Your task to perform on an android device: turn on notifications settings in the gmail app Image 0: 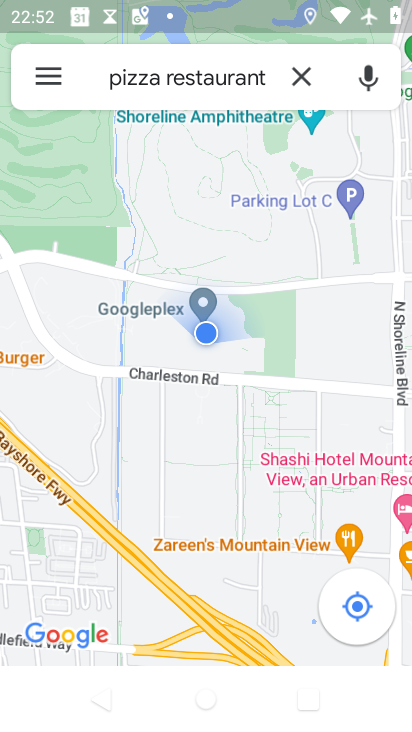
Step 0: press home button
Your task to perform on an android device: turn on notifications settings in the gmail app Image 1: 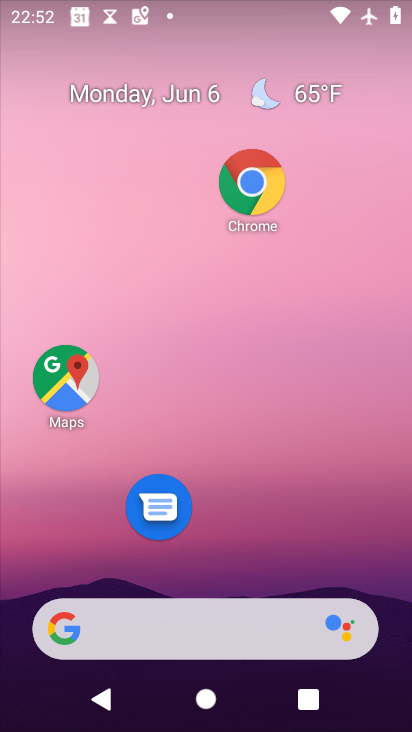
Step 1: drag from (205, 604) to (259, 290)
Your task to perform on an android device: turn on notifications settings in the gmail app Image 2: 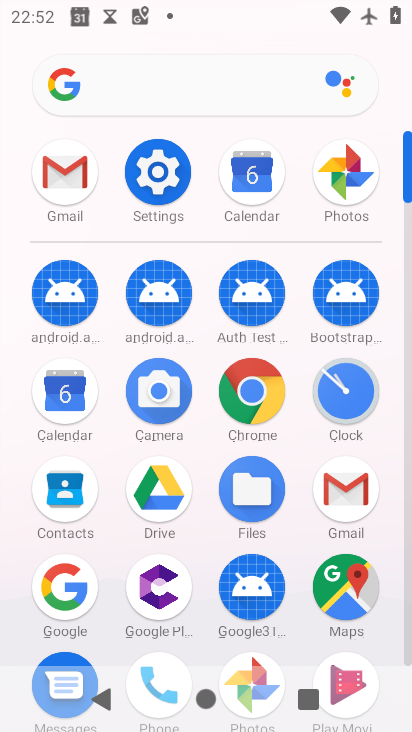
Step 2: click (344, 488)
Your task to perform on an android device: turn on notifications settings in the gmail app Image 3: 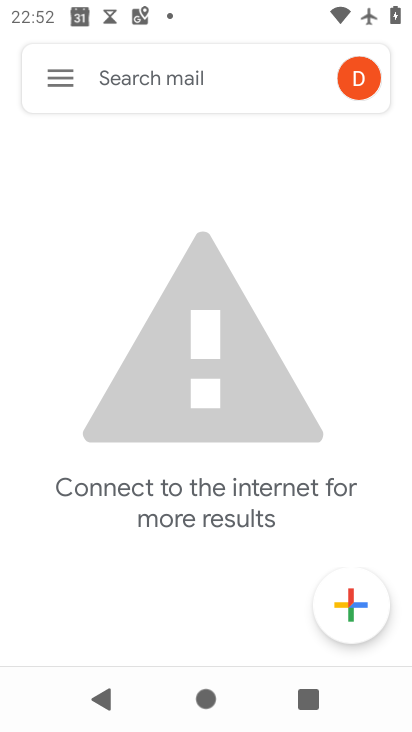
Step 3: click (70, 70)
Your task to perform on an android device: turn on notifications settings in the gmail app Image 4: 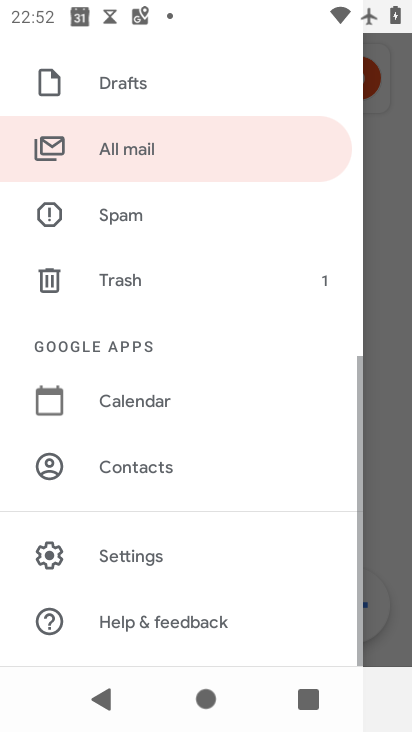
Step 4: click (155, 553)
Your task to perform on an android device: turn on notifications settings in the gmail app Image 5: 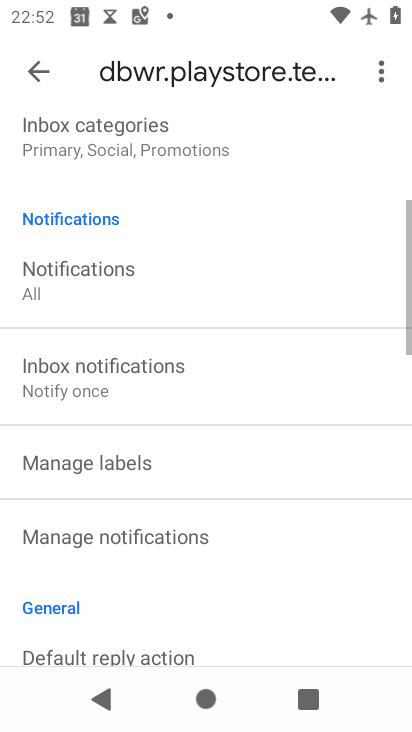
Step 5: click (145, 278)
Your task to perform on an android device: turn on notifications settings in the gmail app Image 6: 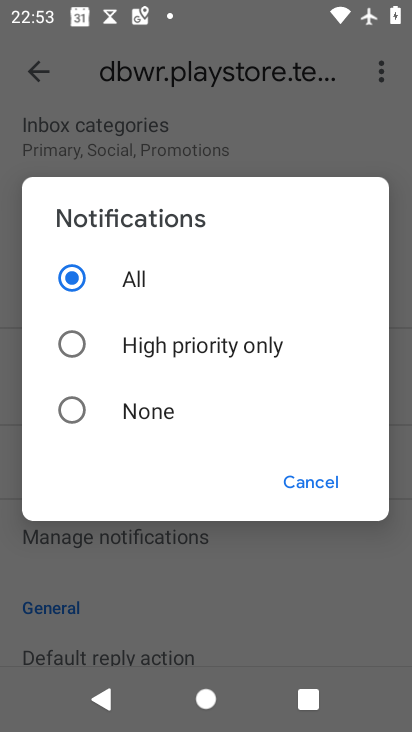
Step 6: task complete